Your task to perform on an android device: turn off notifications settings in the gmail app Image 0: 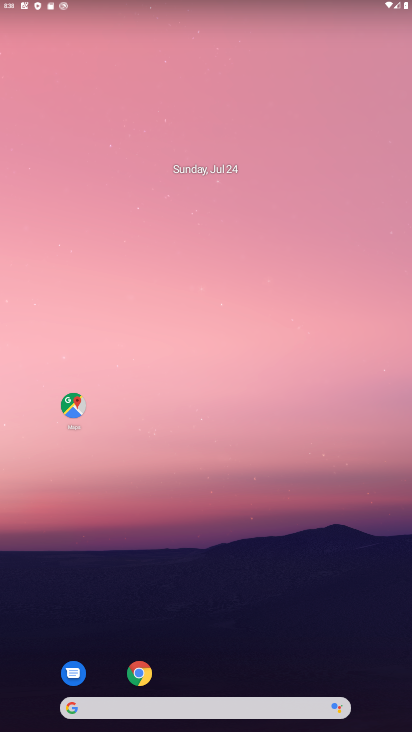
Step 0: drag from (204, 667) to (265, 5)
Your task to perform on an android device: turn off notifications settings in the gmail app Image 1: 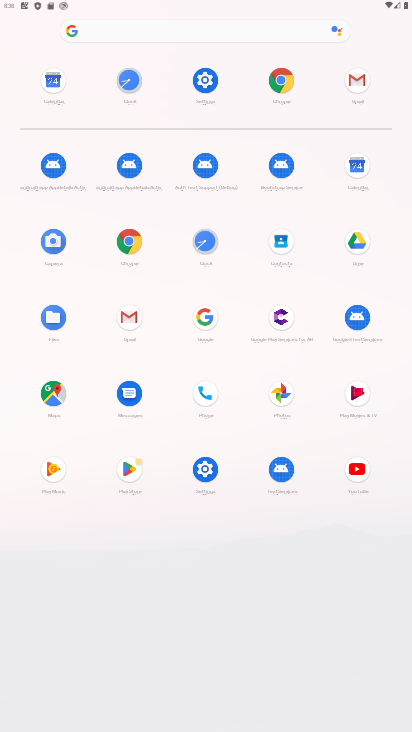
Step 1: click (357, 88)
Your task to perform on an android device: turn off notifications settings in the gmail app Image 2: 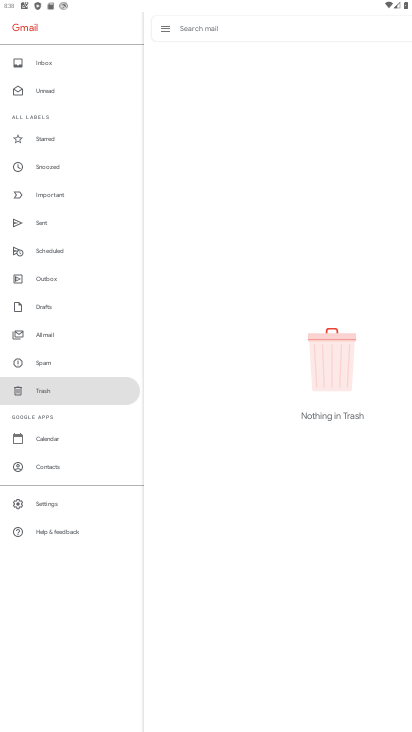
Step 2: click (34, 513)
Your task to perform on an android device: turn off notifications settings in the gmail app Image 3: 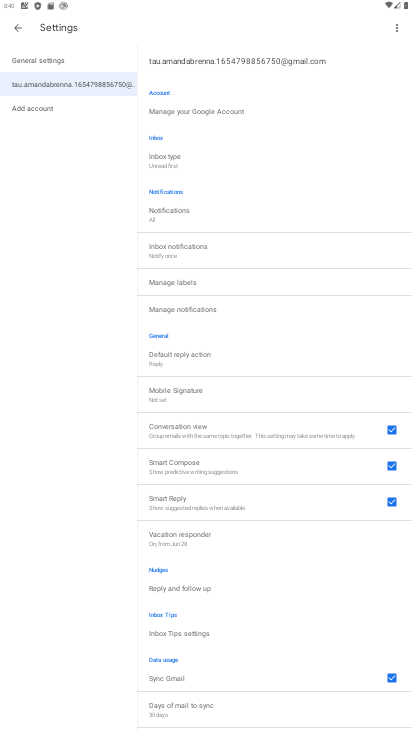
Step 3: click (187, 310)
Your task to perform on an android device: turn off notifications settings in the gmail app Image 4: 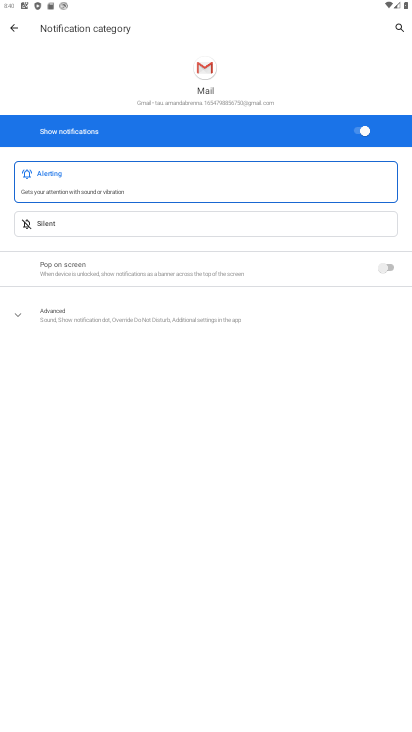
Step 4: click (359, 137)
Your task to perform on an android device: turn off notifications settings in the gmail app Image 5: 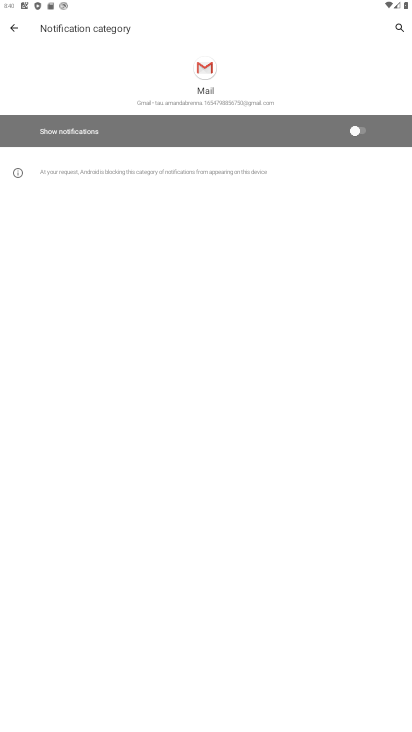
Step 5: task complete